Your task to perform on an android device: View the shopping cart on newegg.com. Image 0: 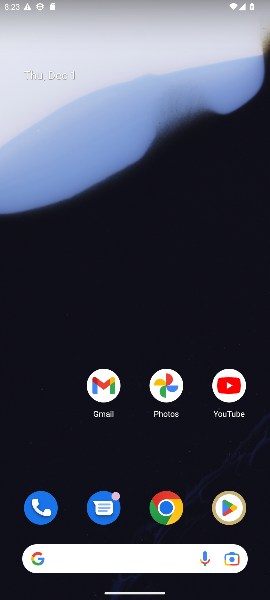
Step 0: click (168, 514)
Your task to perform on an android device: View the shopping cart on newegg.com. Image 1: 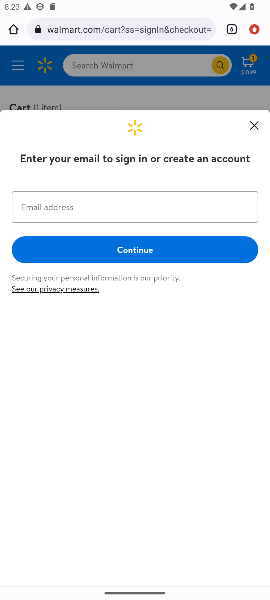
Step 1: click (228, 24)
Your task to perform on an android device: View the shopping cart on newegg.com. Image 2: 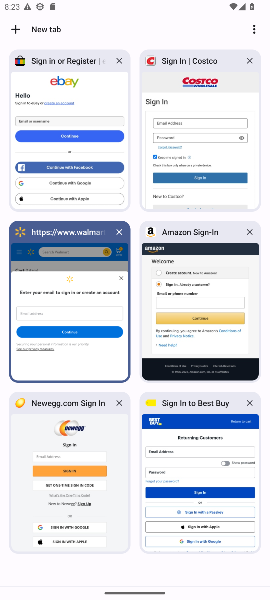
Step 2: click (39, 451)
Your task to perform on an android device: View the shopping cart on newegg.com. Image 3: 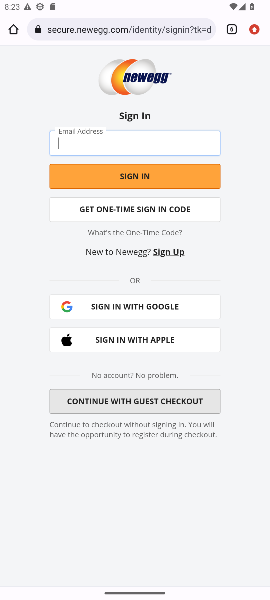
Step 3: press back button
Your task to perform on an android device: View the shopping cart on newegg.com. Image 4: 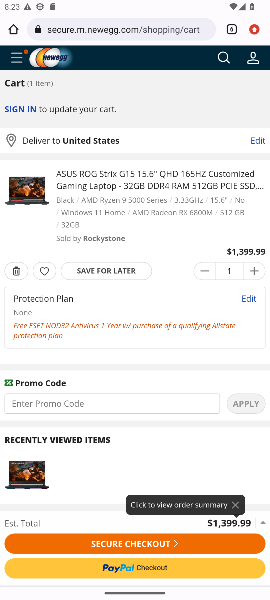
Step 4: click (118, 365)
Your task to perform on an android device: View the shopping cart on newegg.com. Image 5: 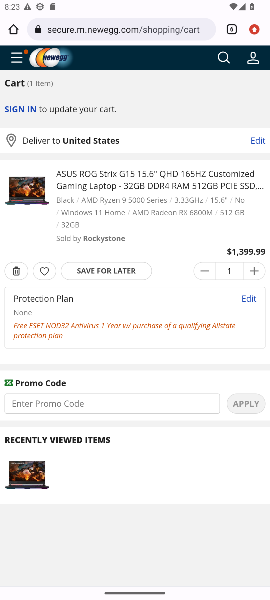
Step 5: task complete